Your task to perform on an android device: Go to Google maps Image 0: 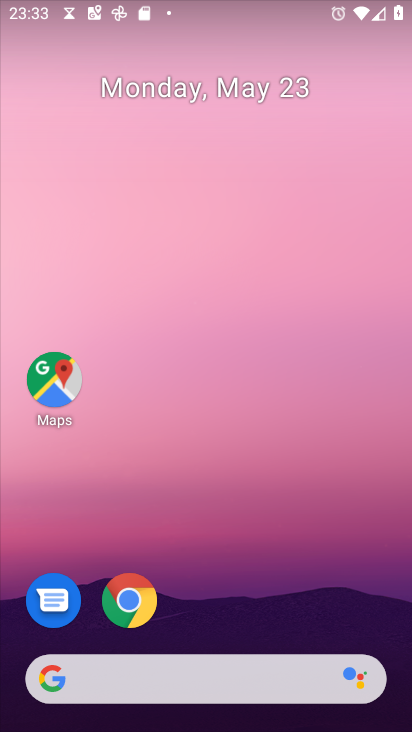
Step 0: drag from (234, 721) to (187, 158)
Your task to perform on an android device: Go to Google maps Image 1: 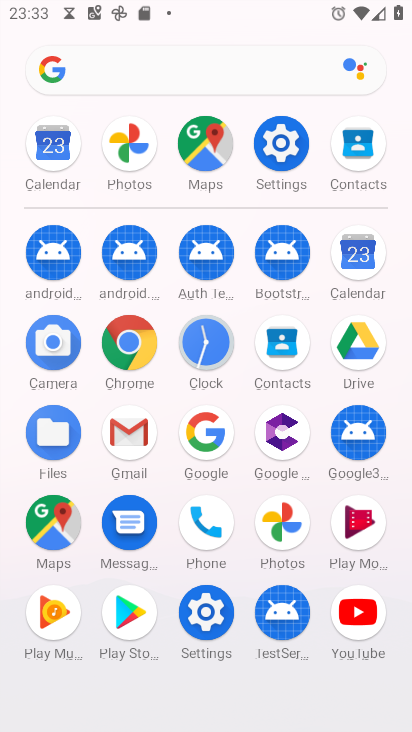
Step 1: click (54, 522)
Your task to perform on an android device: Go to Google maps Image 2: 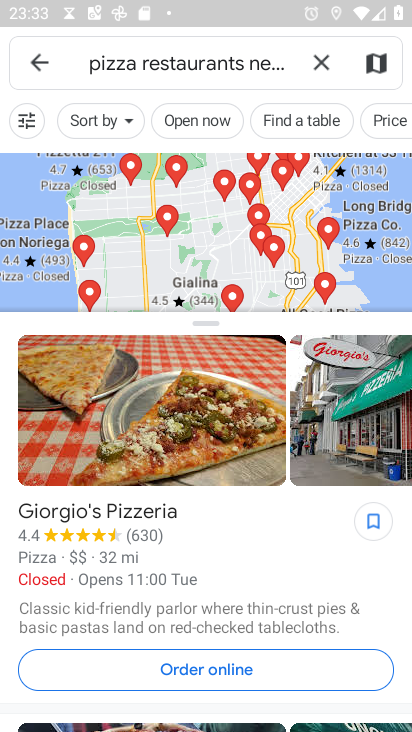
Step 2: task complete